Your task to perform on an android device: turn off priority inbox in the gmail app Image 0: 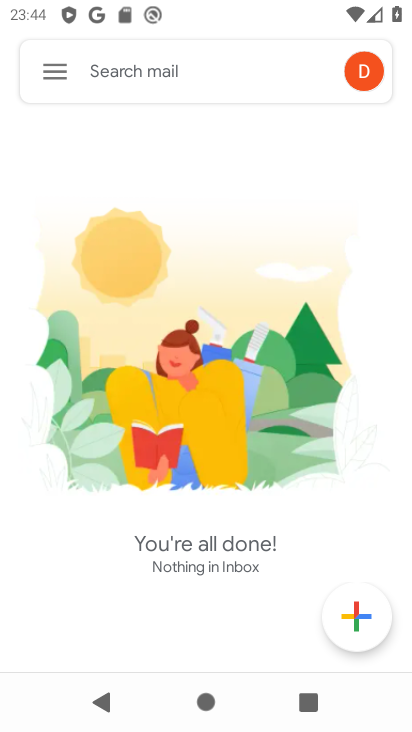
Step 0: press home button
Your task to perform on an android device: turn off priority inbox in the gmail app Image 1: 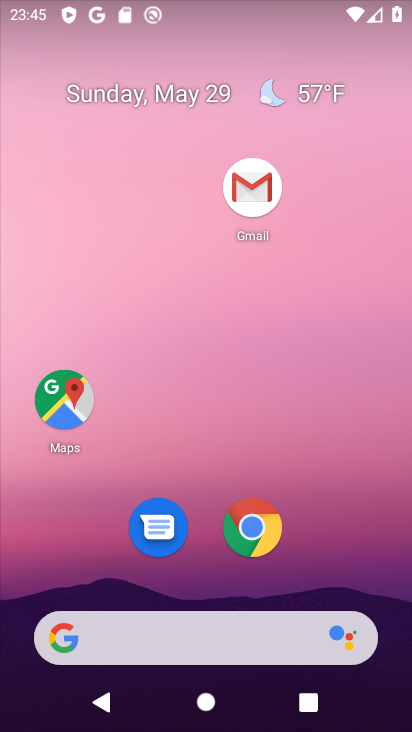
Step 1: click (251, 188)
Your task to perform on an android device: turn off priority inbox in the gmail app Image 2: 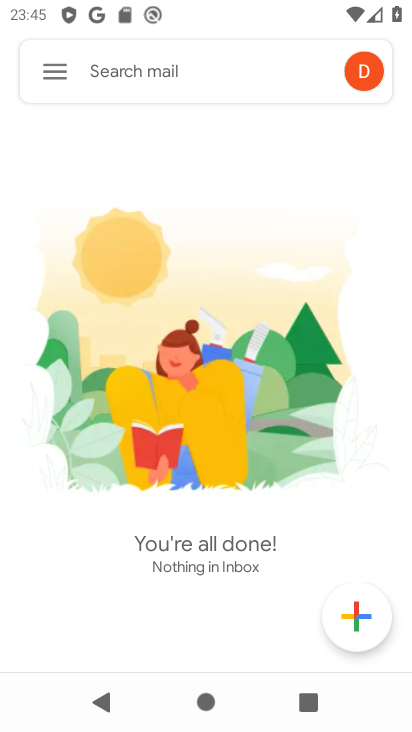
Step 2: click (51, 76)
Your task to perform on an android device: turn off priority inbox in the gmail app Image 3: 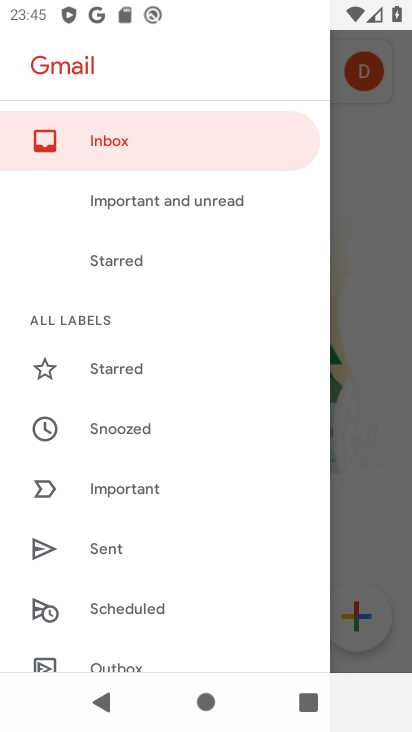
Step 3: drag from (103, 449) to (99, 272)
Your task to perform on an android device: turn off priority inbox in the gmail app Image 4: 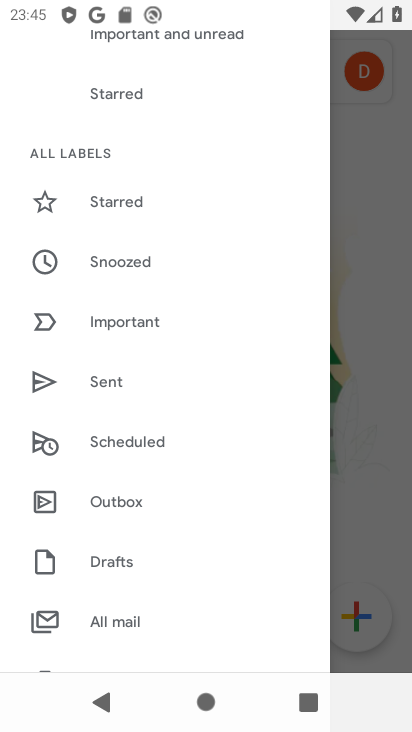
Step 4: drag from (103, 411) to (96, 234)
Your task to perform on an android device: turn off priority inbox in the gmail app Image 5: 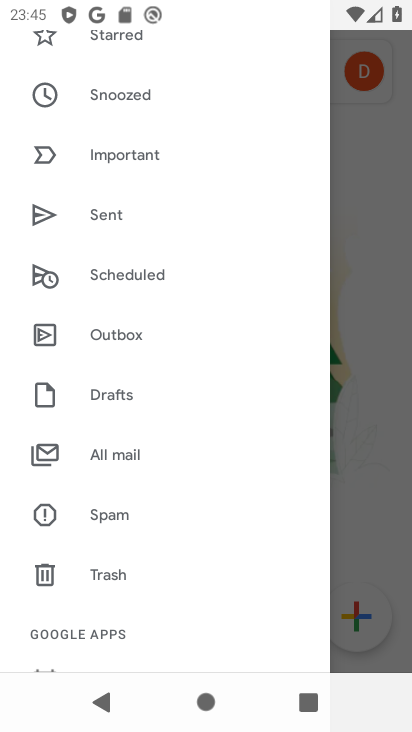
Step 5: drag from (98, 434) to (102, 304)
Your task to perform on an android device: turn off priority inbox in the gmail app Image 6: 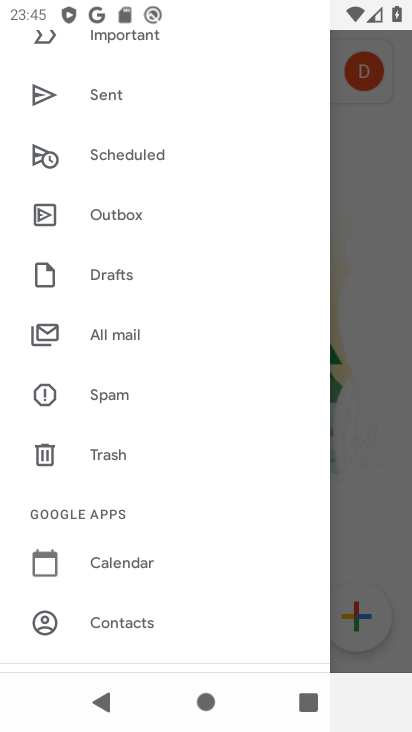
Step 6: drag from (105, 492) to (106, 329)
Your task to perform on an android device: turn off priority inbox in the gmail app Image 7: 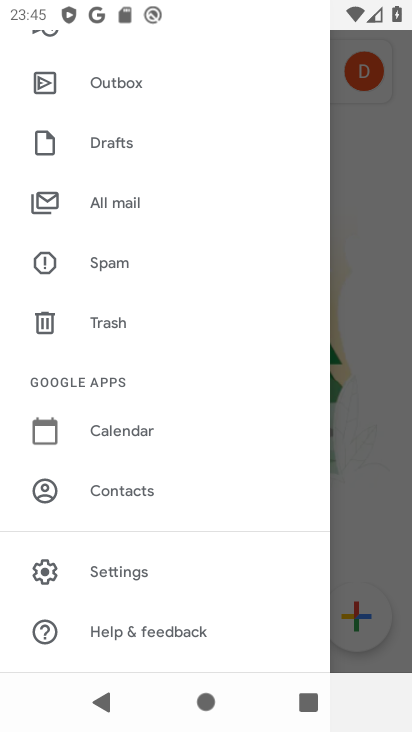
Step 7: click (117, 577)
Your task to perform on an android device: turn off priority inbox in the gmail app Image 8: 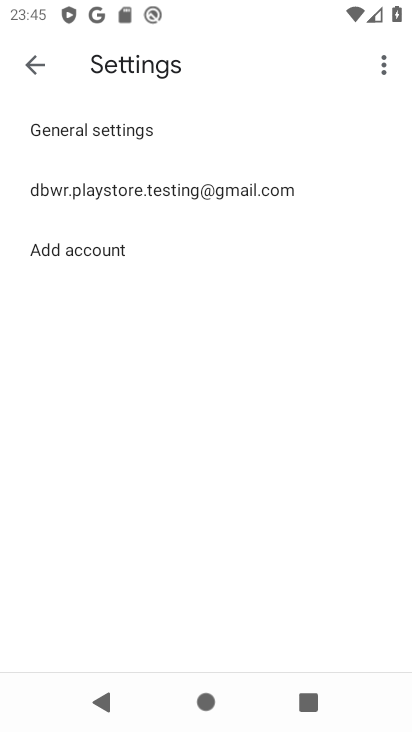
Step 8: click (84, 198)
Your task to perform on an android device: turn off priority inbox in the gmail app Image 9: 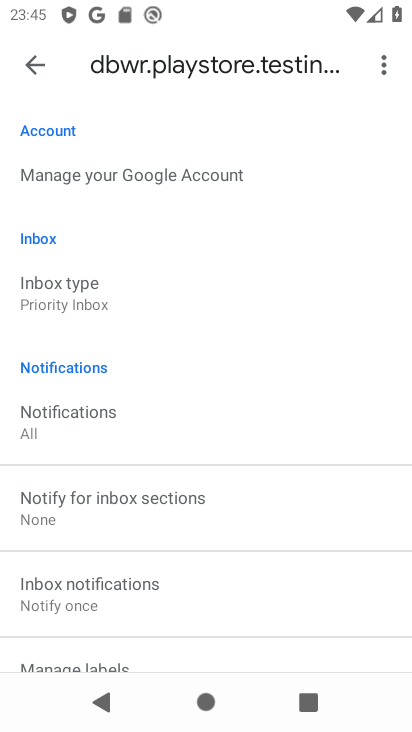
Step 9: click (96, 312)
Your task to perform on an android device: turn off priority inbox in the gmail app Image 10: 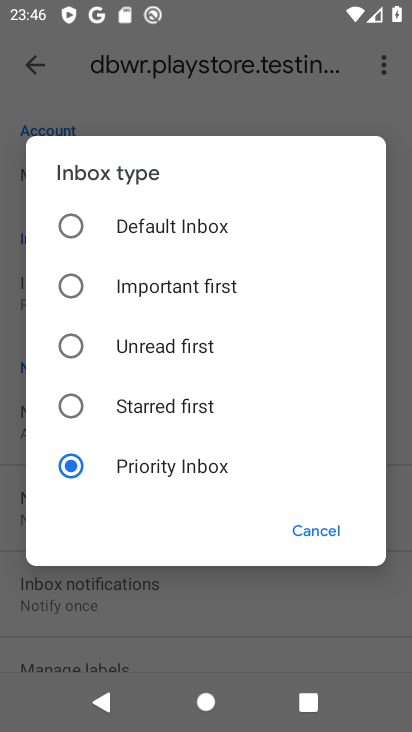
Step 10: click (166, 395)
Your task to perform on an android device: turn off priority inbox in the gmail app Image 11: 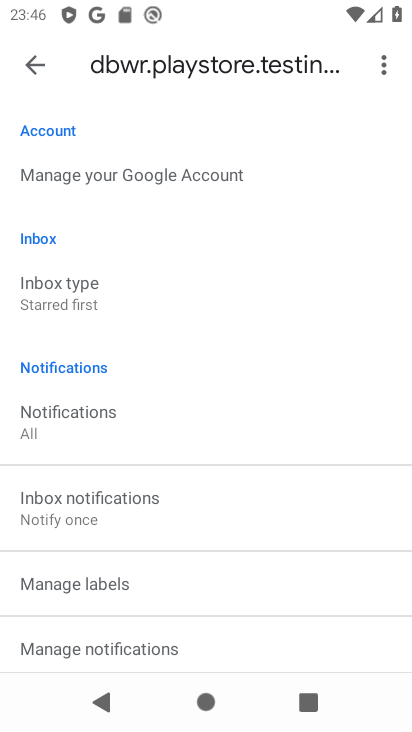
Step 11: task complete